Your task to perform on an android device: empty trash in the gmail app Image 0: 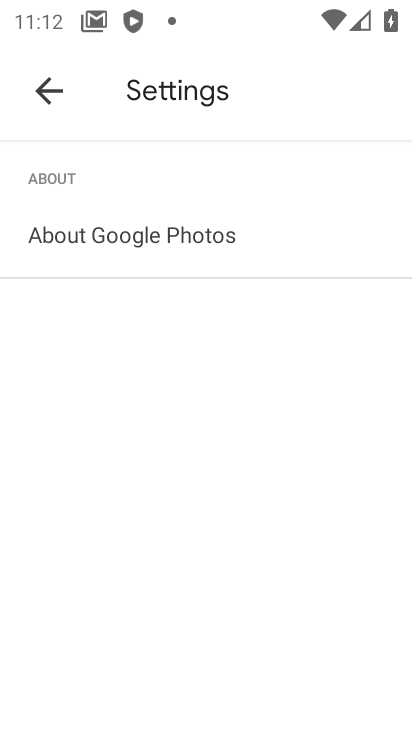
Step 0: press home button
Your task to perform on an android device: empty trash in the gmail app Image 1: 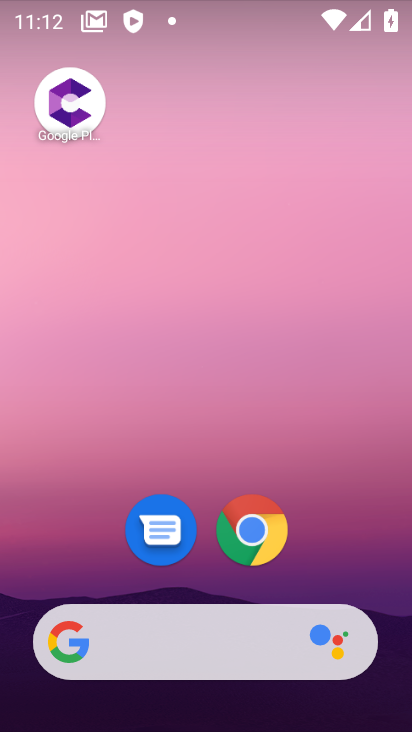
Step 1: drag from (376, 618) to (366, 307)
Your task to perform on an android device: empty trash in the gmail app Image 2: 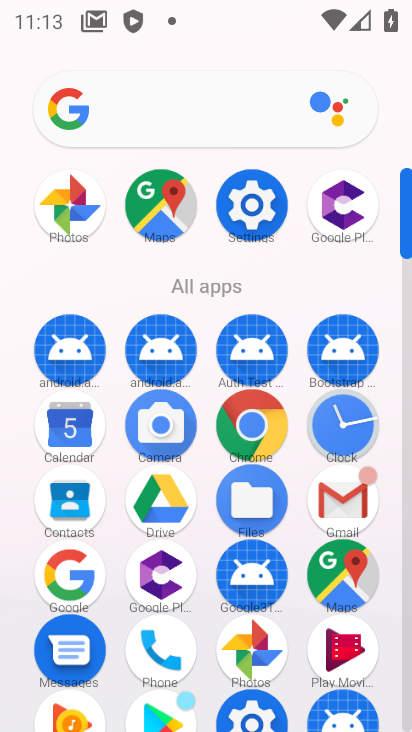
Step 2: click (336, 507)
Your task to perform on an android device: empty trash in the gmail app Image 3: 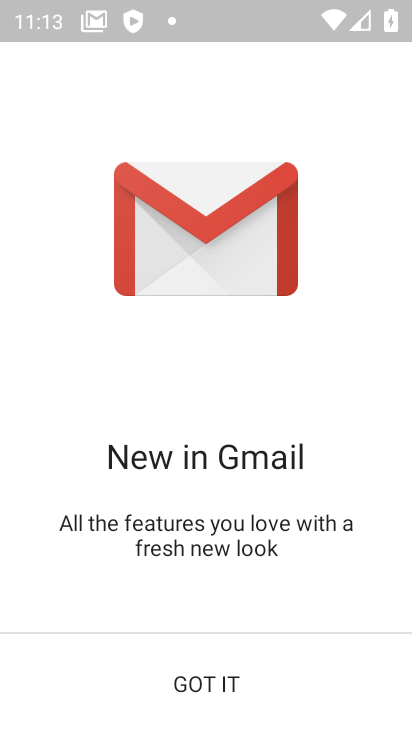
Step 3: click (212, 661)
Your task to perform on an android device: empty trash in the gmail app Image 4: 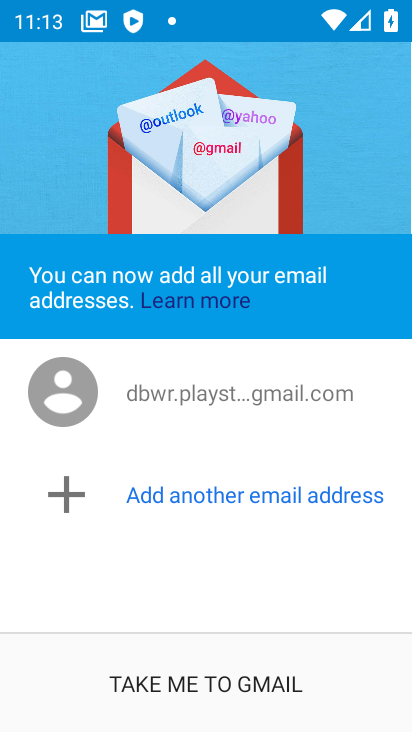
Step 4: click (216, 689)
Your task to perform on an android device: empty trash in the gmail app Image 5: 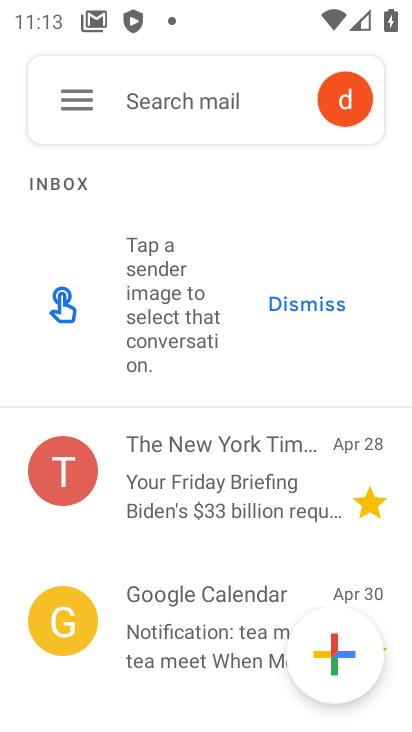
Step 5: click (80, 96)
Your task to perform on an android device: empty trash in the gmail app Image 6: 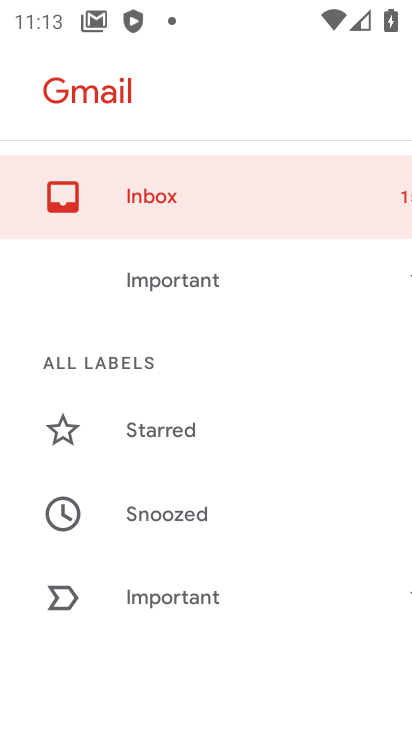
Step 6: drag from (253, 486) to (245, 324)
Your task to perform on an android device: empty trash in the gmail app Image 7: 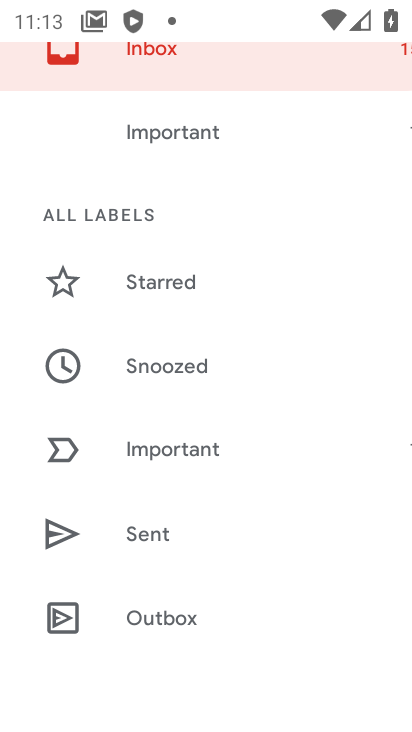
Step 7: drag from (327, 566) to (323, 332)
Your task to perform on an android device: empty trash in the gmail app Image 8: 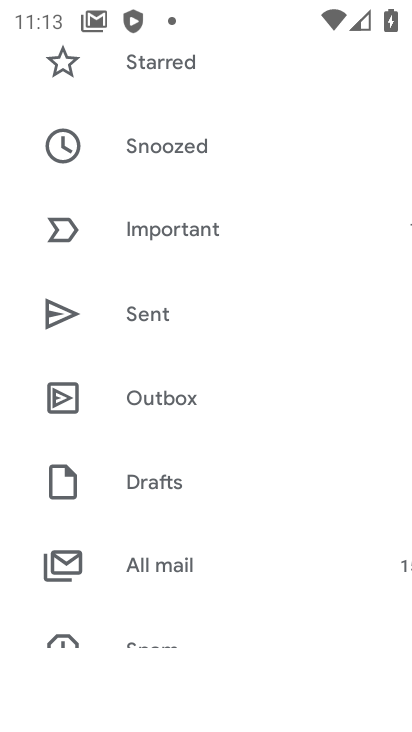
Step 8: drag from (337, 556) to (347, 292)
Your task to perform on an android device: empty trash in the gmail app Image 9: 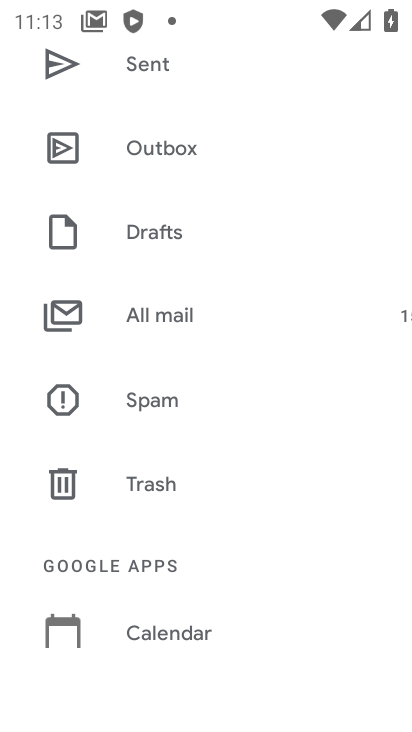
Step 9: drag from (306, 642) to (301, 361)
Your task to perform on an android device: empty trash in the gmail app Image 10: 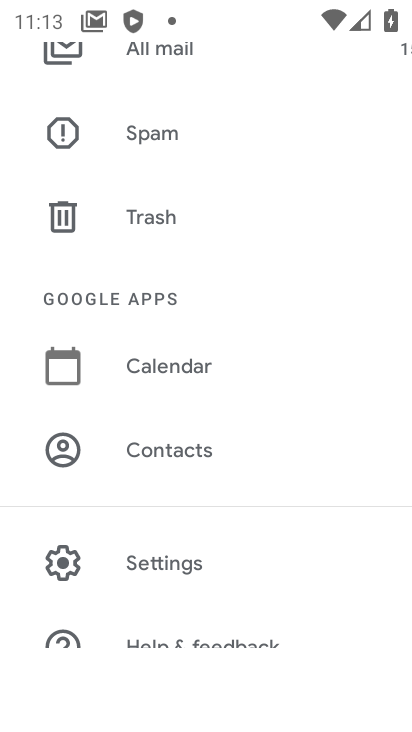
Step 10: click (158, 213)
Your task to perform on an android device: empty trash in the gmail app Image 11: 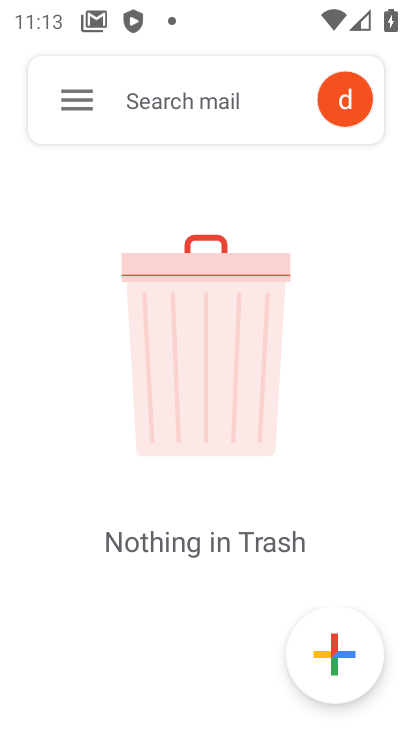
Step 11: task complete